Your task to perform on an android device: turn pop-ups on in chrome Image 0: 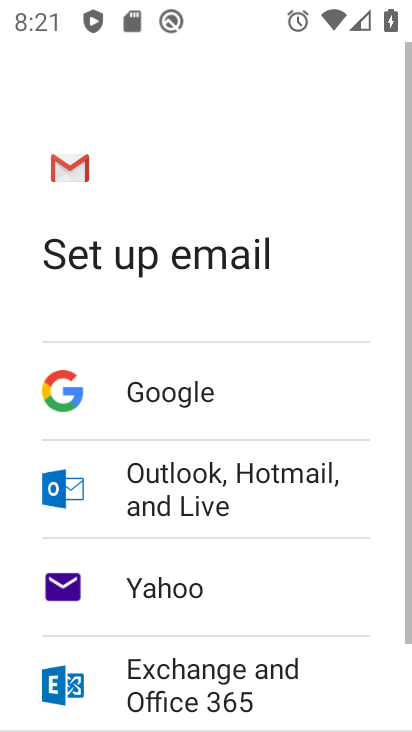
Step 0: press home button
Your task to perform on an android device: turn pop-ups on in chrome Image 1: 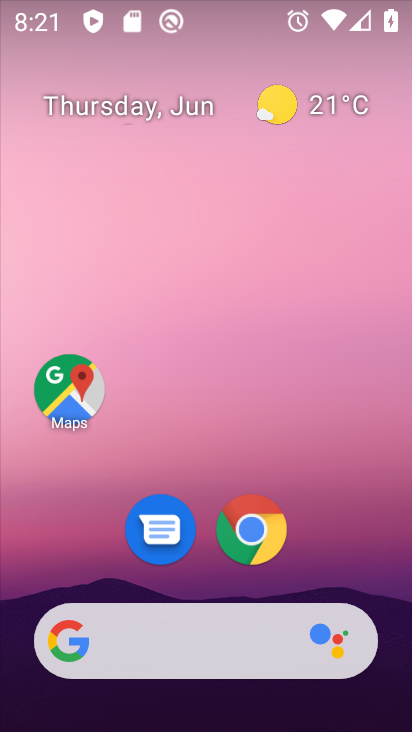
Step 1: click (240, 529)
Your task to perform on an android device: turn pop-ups on in chrome Image 2: 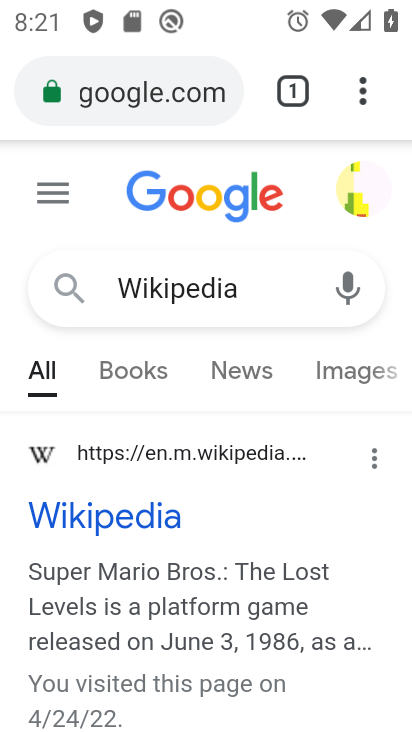
Step 2: click (362, 87)
Your task to perform on an android device: turn pop-ups on in chrome Image 3: 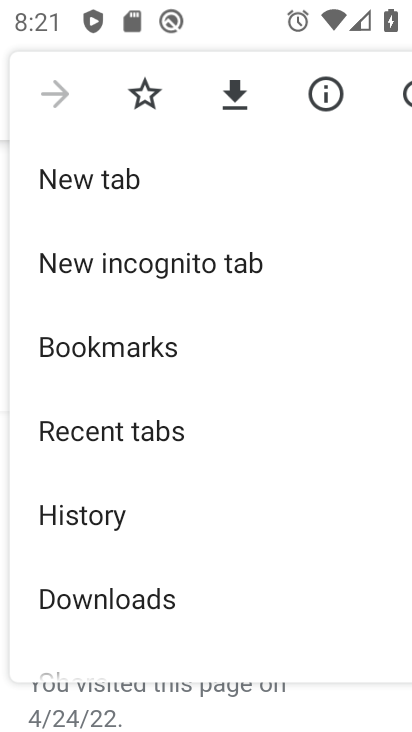
Step 3: drag from (303, 625) to (352, 317)
Your task to perform on an android device: turn pop-ups on in chrome Image 4: 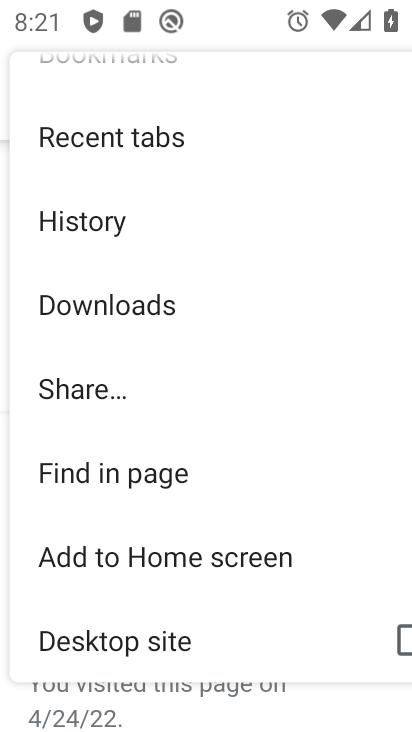
Step 4: drag from (297, 634) to (300, 360)
Your task to perform on an android device: turn pop-ups on in chrome Image 5: 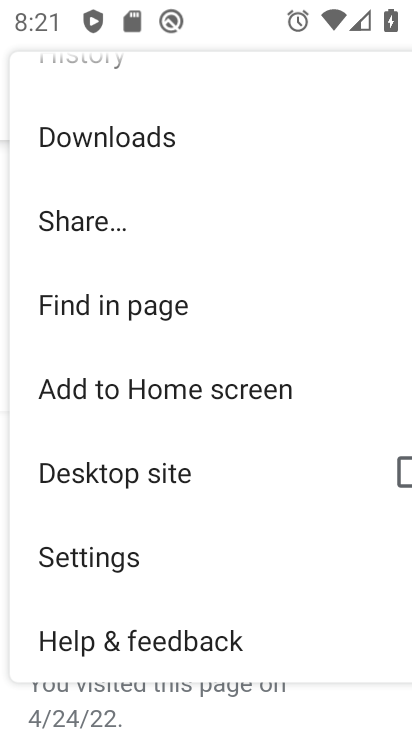
Step 5: click (79, 557)
Your task to perform on an android device: turn pop-ups on in chrome Image 6: 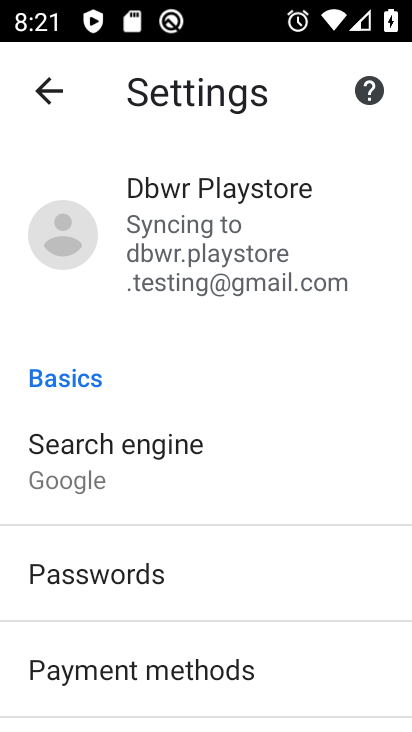
Step 6: drag from (318, 678) to (324, 418)
Your task to perform on an android device: turn pop-ups on in chrome Image 7: 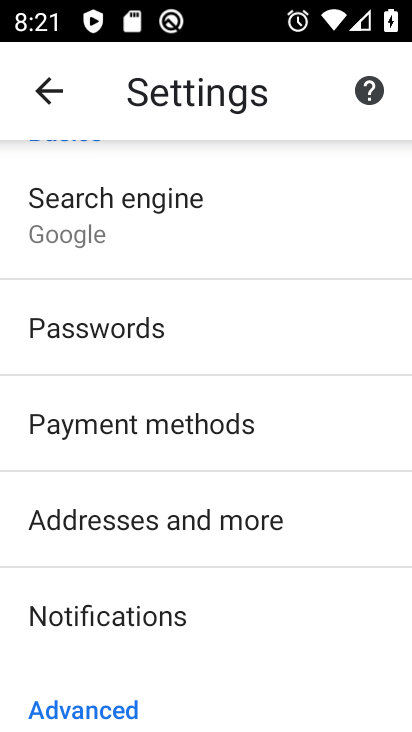
Step 7: drag from (331, 668) to (333, 288)
Your task to perform on an android device: turn pop-ups on in chrome Image 8: 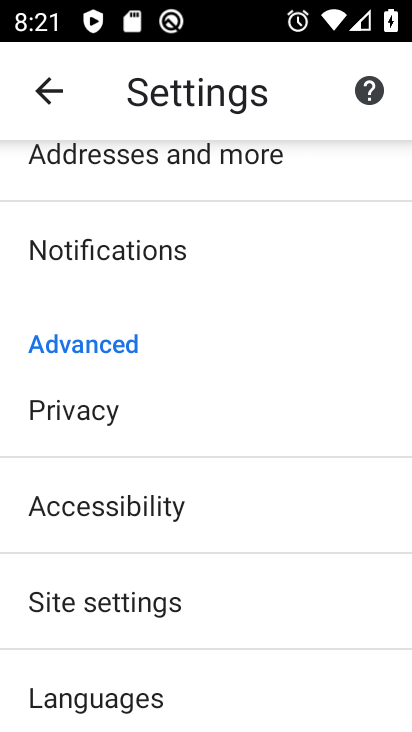
Step 8: click (118, 599)
Your task to perform on an android device: turn pop-ups on in chrome Image 9: 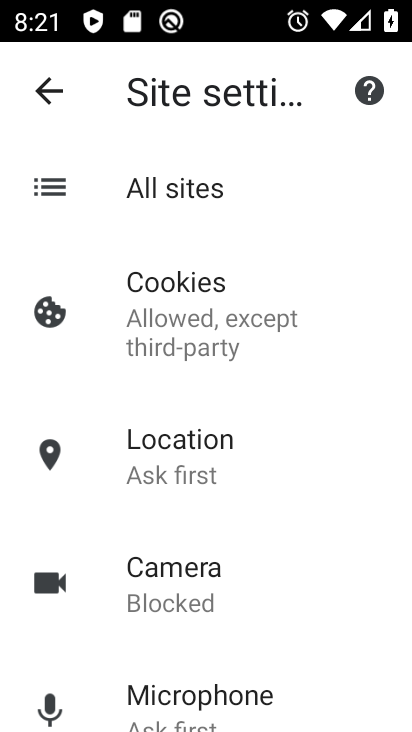
Step 9: drag from (328, 686) to (346, 312)
Your task to perform on an android device: turn pop-ups on in chrome Image 10: 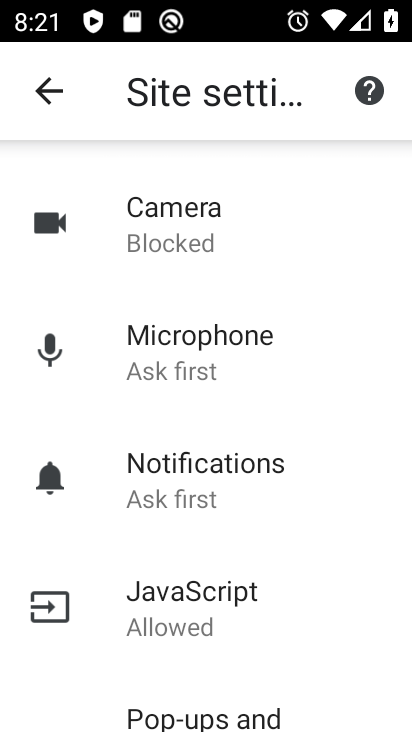
Step 10: drag from (330, 686) to (358, 371)
Your task to perform on an android device: turn pop-ups on in chrome Image 11: 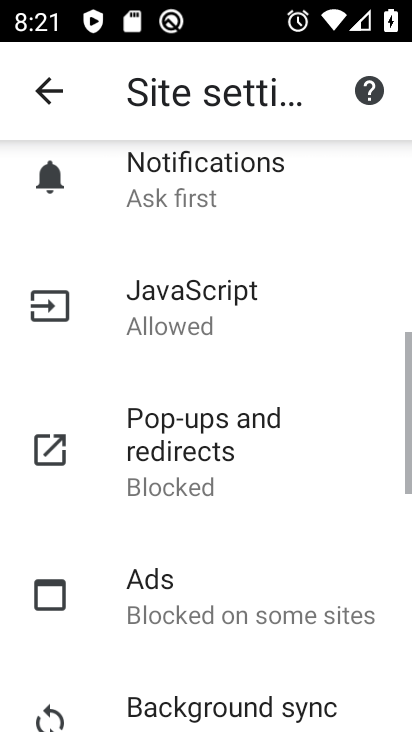
Step 11: click (191, 443)
Your task to perform on an android device: turn pop-ups on in chrome Image 12: 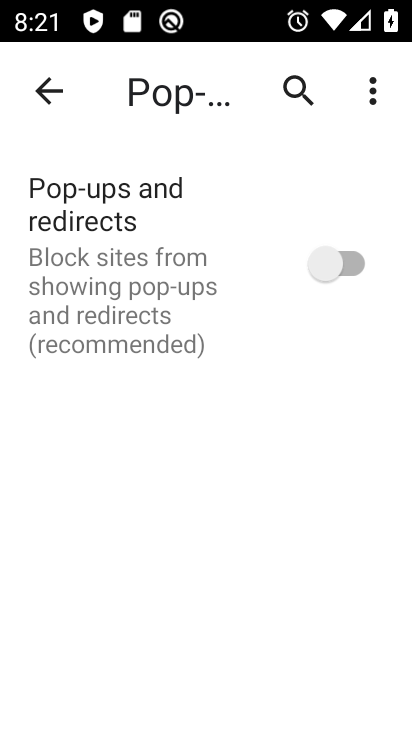
Step 12: click (357, 255)
Your task to perform on an android device: turn pop-ups on in chrome Image 13: 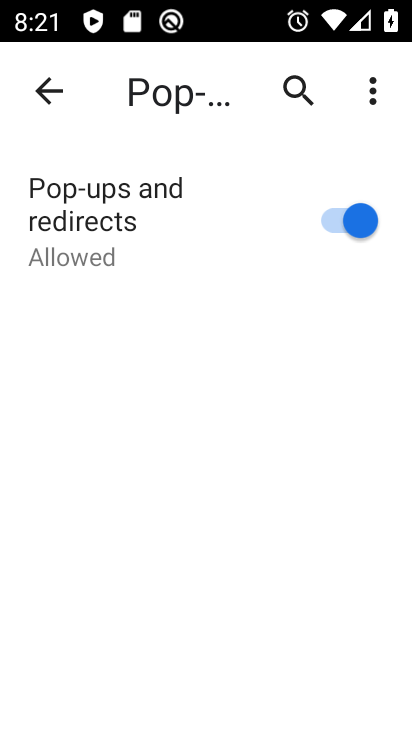
Step 13: task complete